Your task to perform on an android device: turn on translation in the chrome app Image 0: 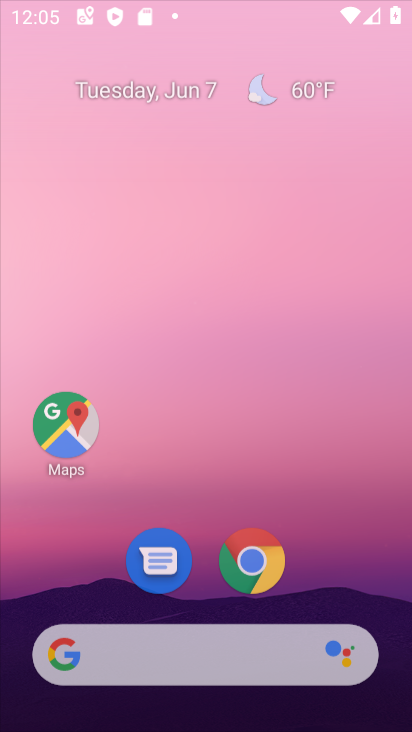
Step 0: press home button
Your task to perform on an android device: turn on translation in the chrome app Image 1: 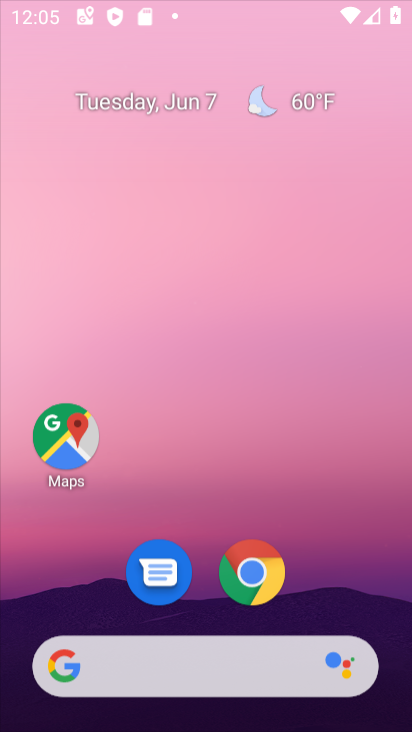
Step 1: drag from (339, 652) to (337, 23)
Your task to perform on an android device: turn on translation in the chrome app Image 2: 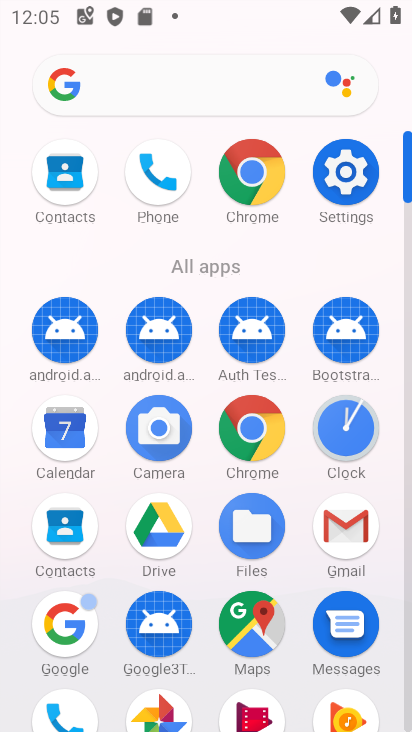
Step 2: click (245, 166)
Your task to perform on an android device: turn on translation in the chrome app Image 3: 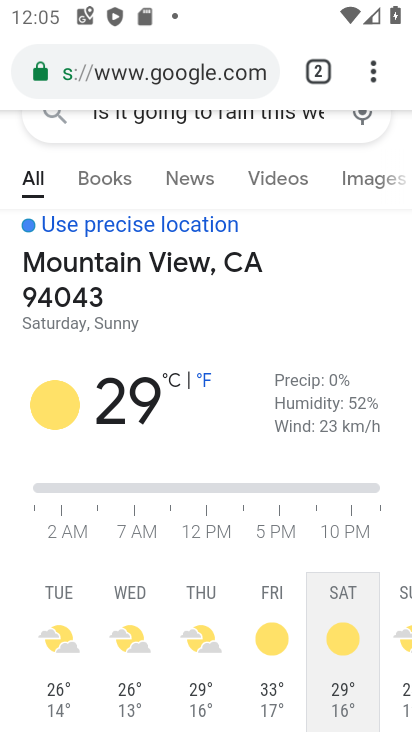
Step 3: click (373, 71)
Your task to perform on an android device: turn on translation in the chrome app Image 4: 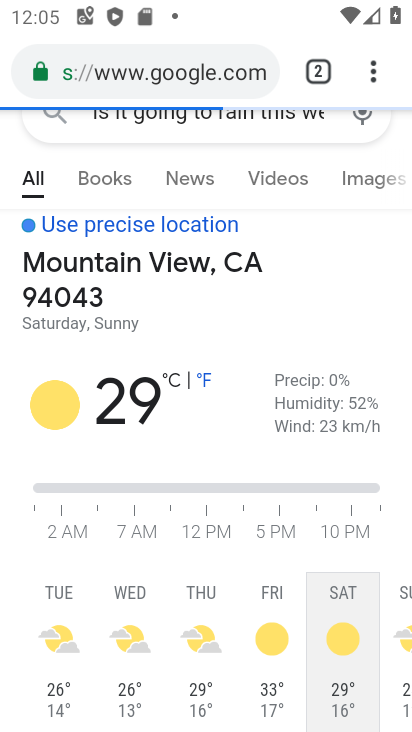
Step 4: drag from (373, 71) to (157, 582)
Your task to perform on an android device: turn on translation in the chrome app Image 5: 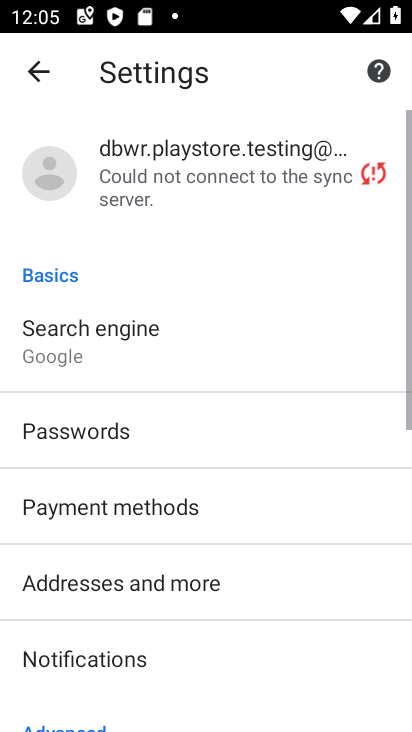
Step 5: drag from (170, 632) to (229, 11)
Your task to perform on an android device: turn on translation in the chrome app Image 6: 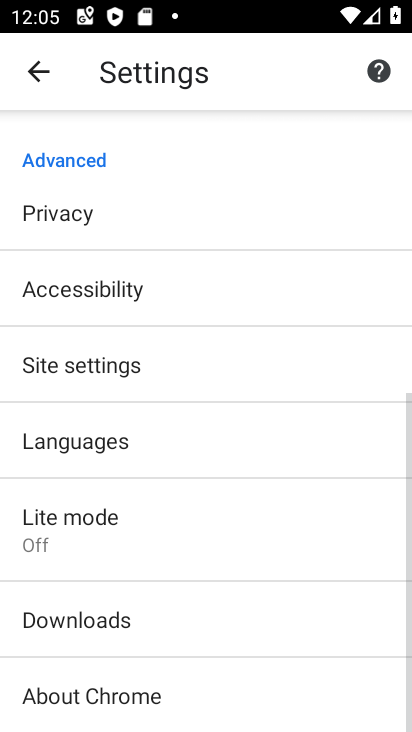
Step 6: click (84, 462)
Your task to perform on an android device: turn on translation in the chrome app Image 7: 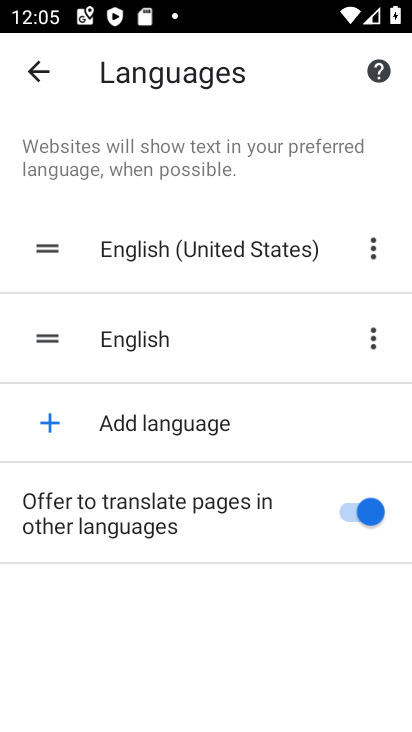
Step 7: task complete